Your task to perform on an android device: Open Google Image 0: 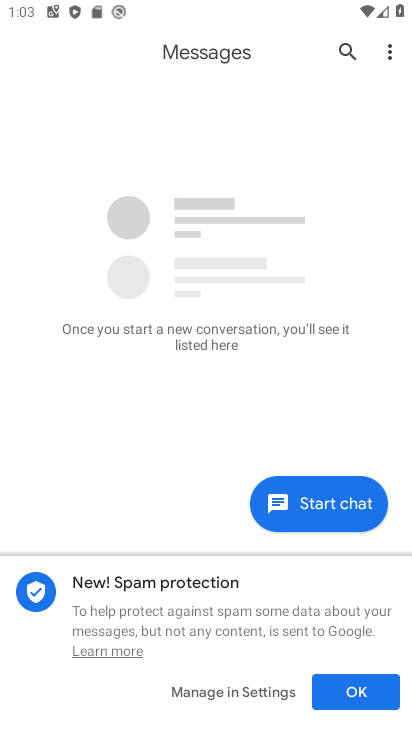
Step 0: press home button
Your task to perform on an android device: Open Google Image 1: 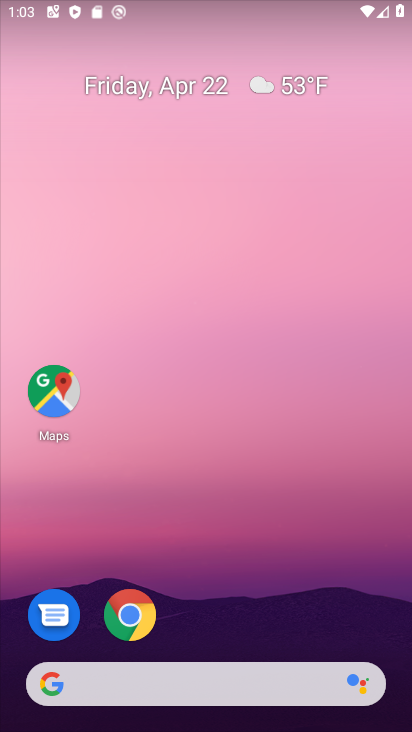
Step 1: drag from (368, 626) to (373, 1)
Your task to perform on an android device: Open Google Image 2: 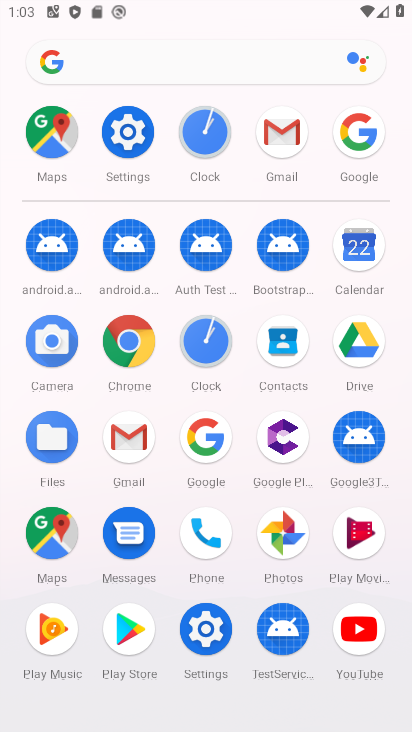
Step 2: click (360, 130)
Your task to perform on an android device: Open Google Image 3: 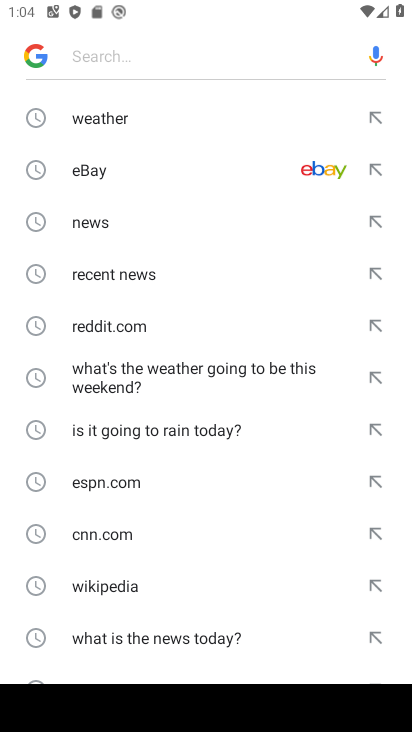
Step 3: task complete